Your task to perform on an android device: Open Google Chrome and open the bookmarks view Image 0: 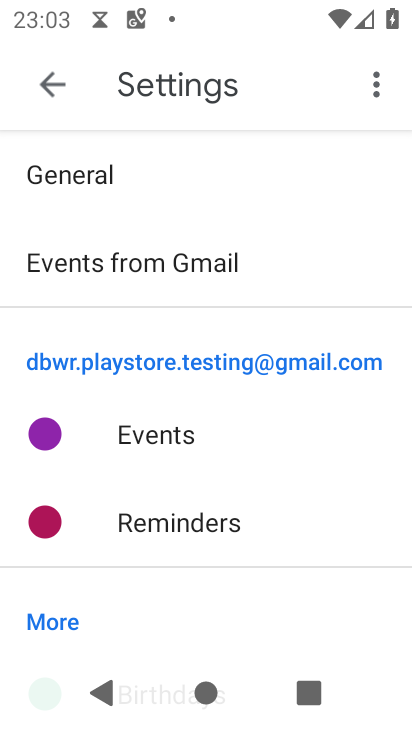
Step 0: press home button
Your task to perform on an android device: Open Google Chrome and open the bookmarks view Image 1: 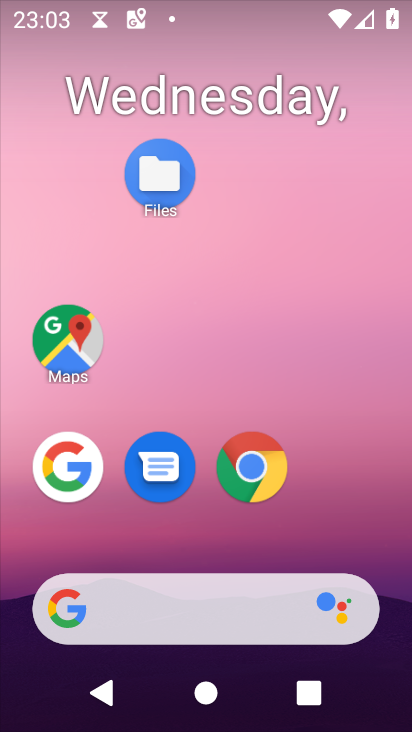
Step 1: click (260, 478)
Your task to perform on an android device: Open Google Chrome and open the bookmarks view Image 2: 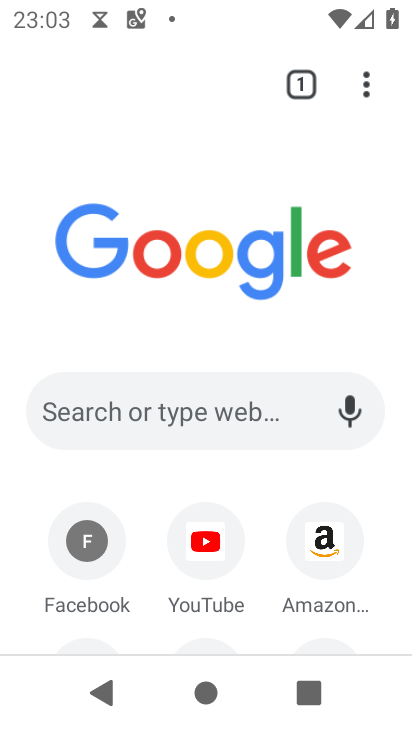
Step 2: click (361, 86)
Your task to perform on an android device: Open Google Chrome and open the bookmarks view Image 3: 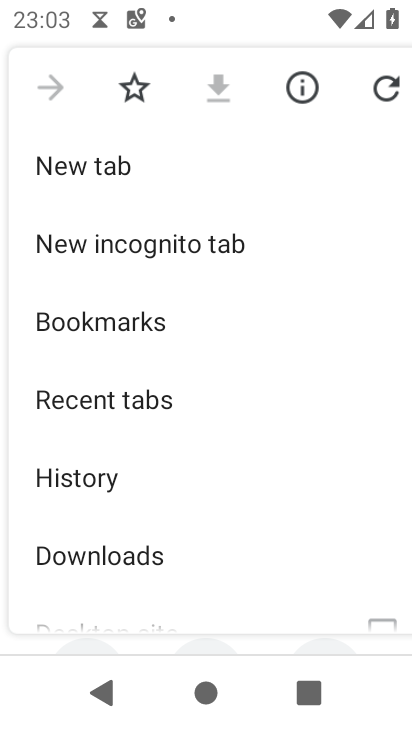
Step 3: click (128, 307)
Your task to perform on an android device: Open Google Chrome and open the bookmarks view Image 4: 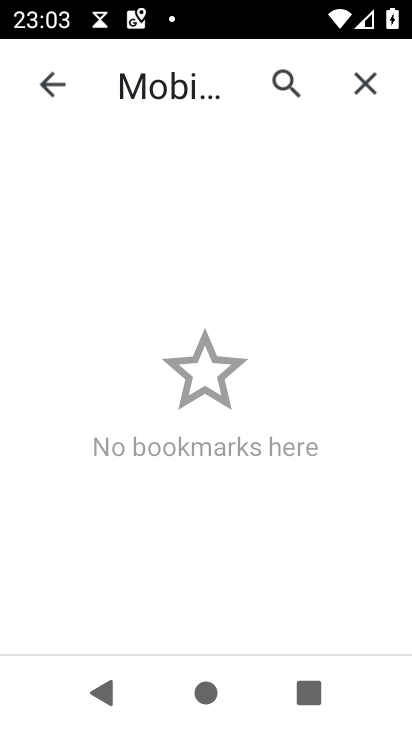
Step 4: task complete